Your task to perform on an android device: What is the capital of England? Image 0: 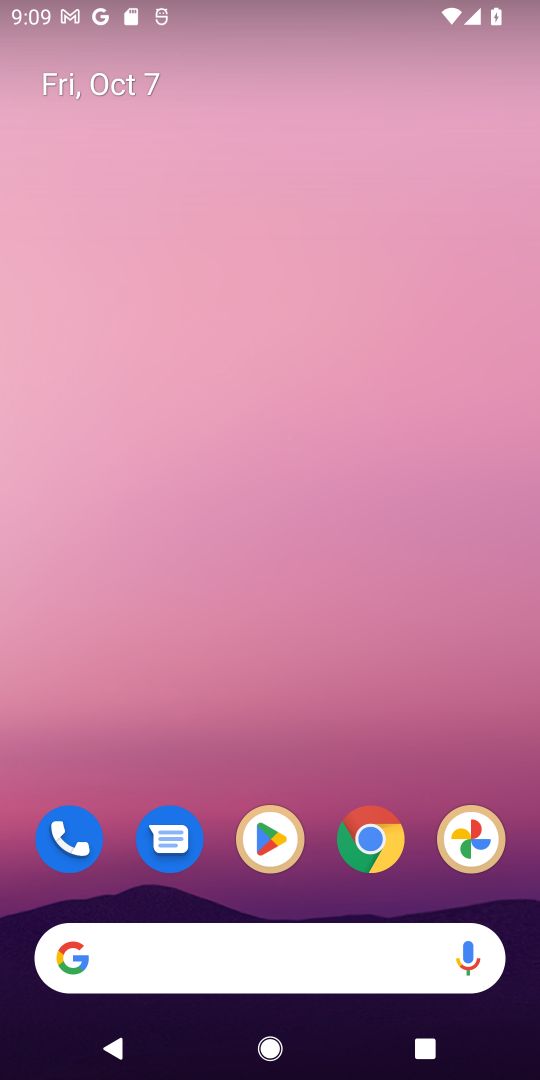
Step 0: click (372, 831)
Your task to perform on an android device: What is the capital of England? Image 1: 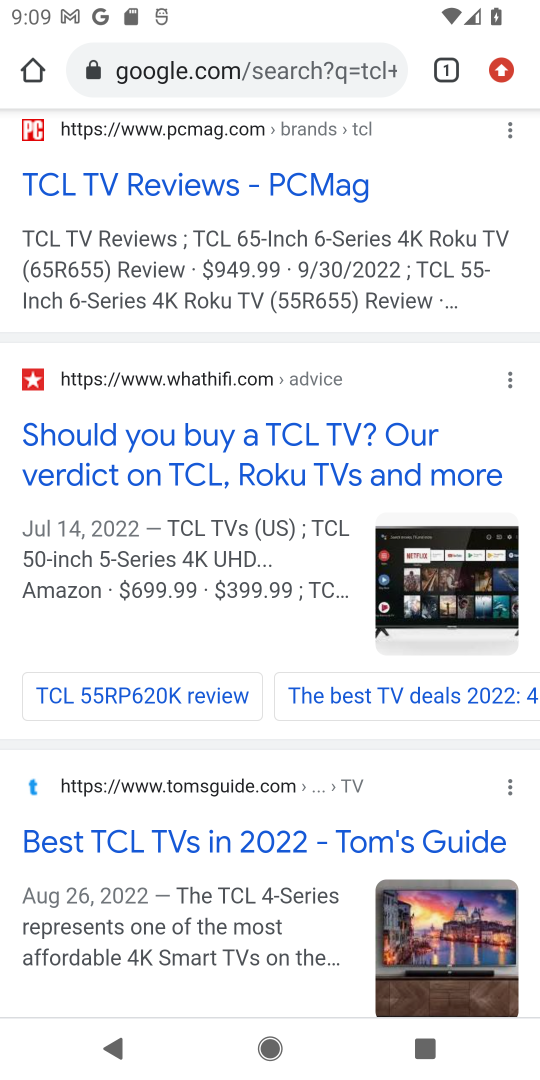
Step 1: click (259, 69)
Your task to perform on an android device: What is the capital of England? Image 2: 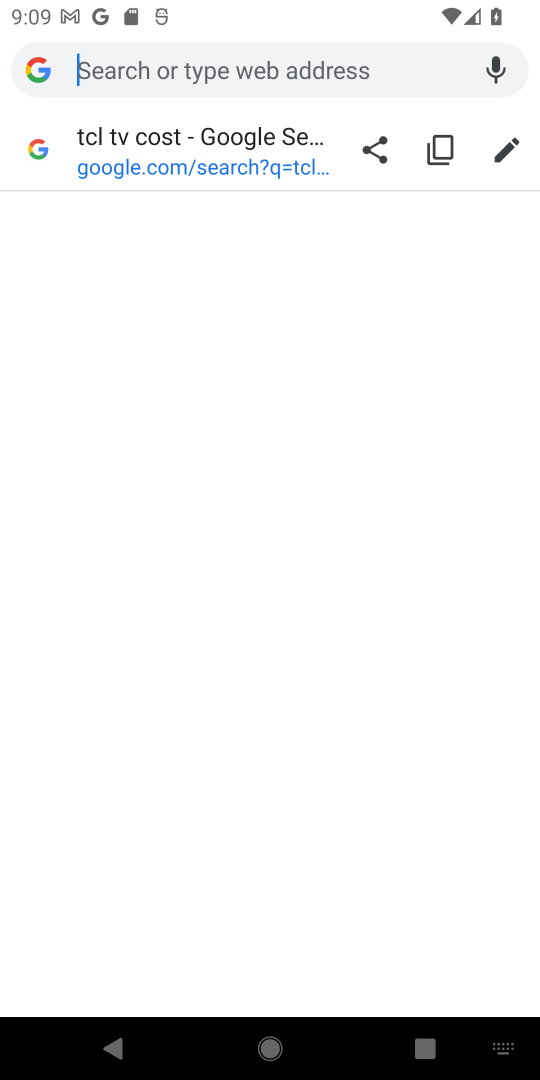
Step 2: type "capital of england"
Your task to perform on an android device: What is the capital of England? Image 3: 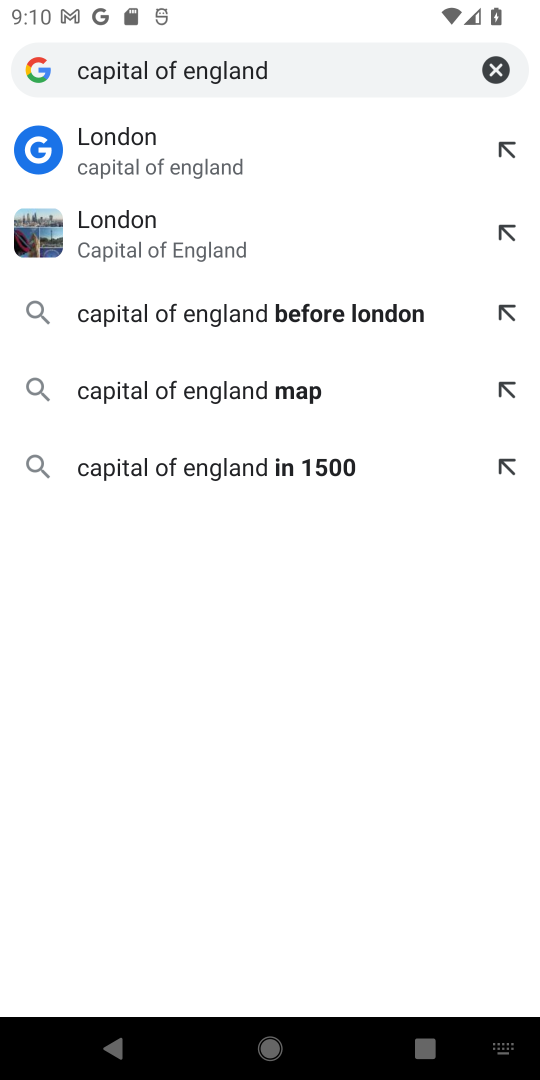
Step 3: click (142, 137)
Your task to perform on an android device: What is the capital of England? Image 4: 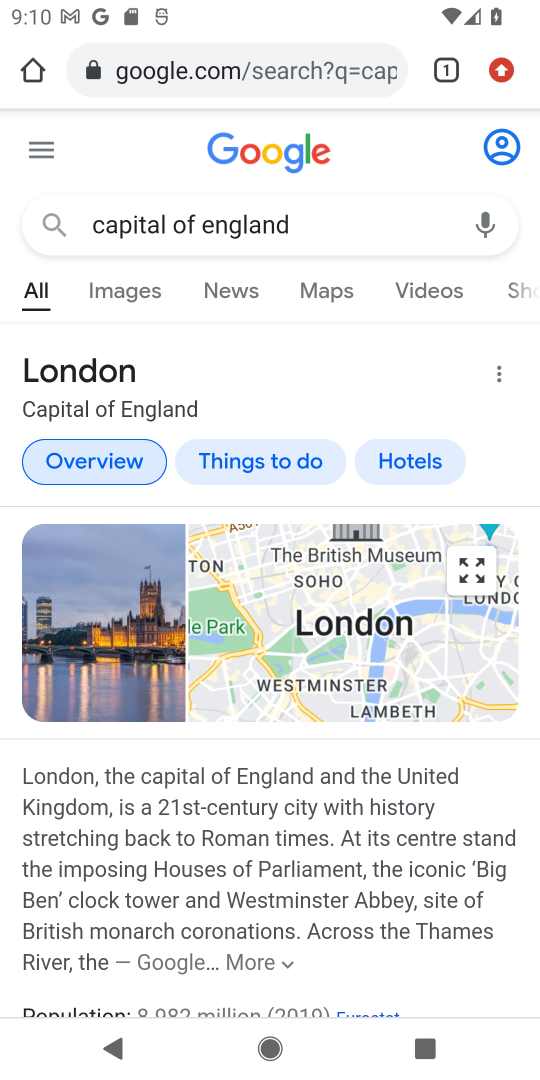
Step 4: task complete